Your task to perform on an android device: turn on data saver in the chrome app Image 0: 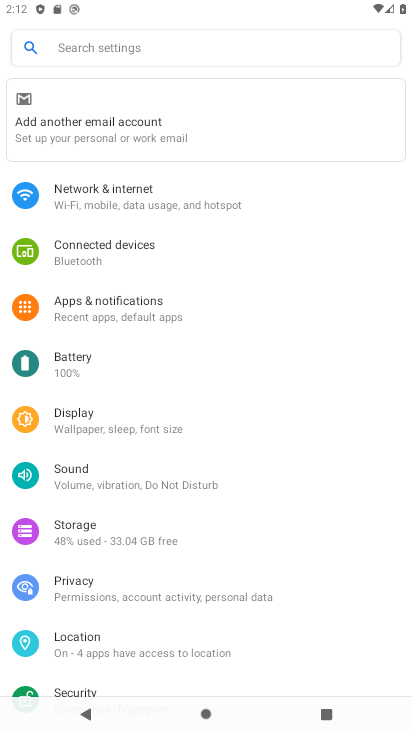
Step 0: drag from (239, 579) to (242, 299)
Your task to perform on an android device: turn on data saver in the chrome app Image 1: 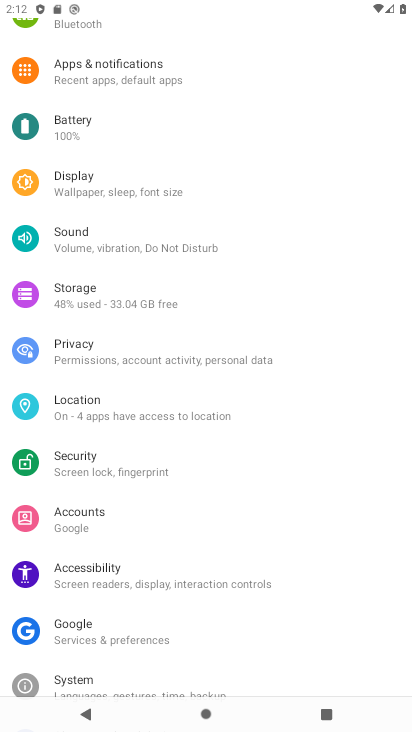
Step 1: drag from (114, 530) to (146, 378)
Your task to perform on an android device: turn on data saver in the chrome app Image 2: 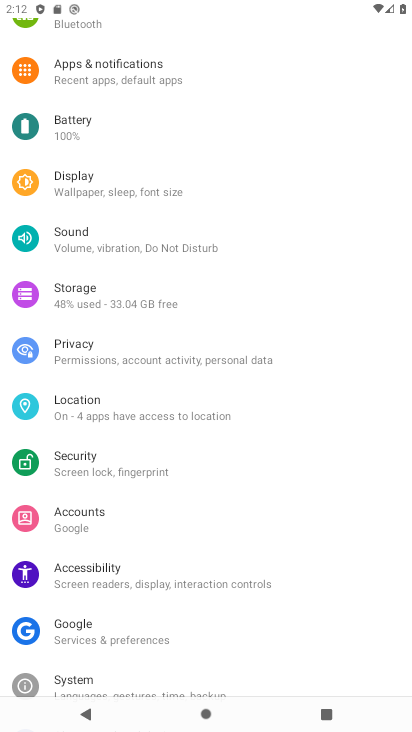
Step 2: drag from (224, 152) to (240, 675)
Your task to perform on an android device: turn on data saver in the chrome app Image 3: 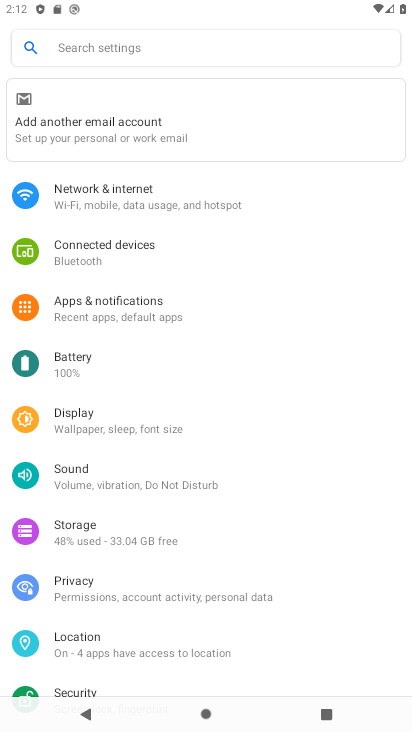
Step 3: drag from (263, 598) to (302, 310)
Your task to perform on an android device: turn on data saver in the chrome app Image 4: 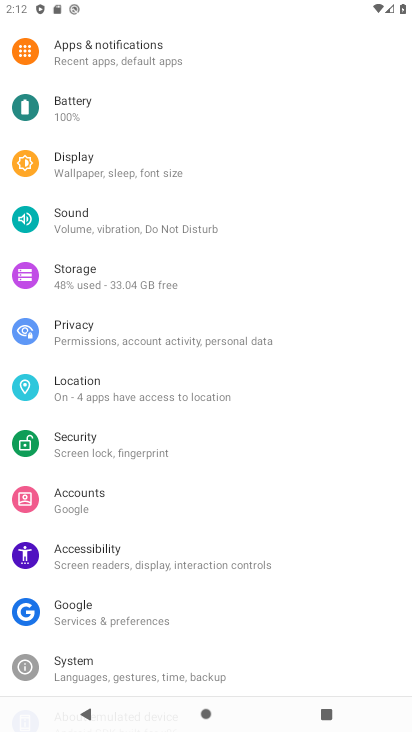
Step 4: press home button
Your task to perform on an android device: turn on data saver in the chrome app Image 5: 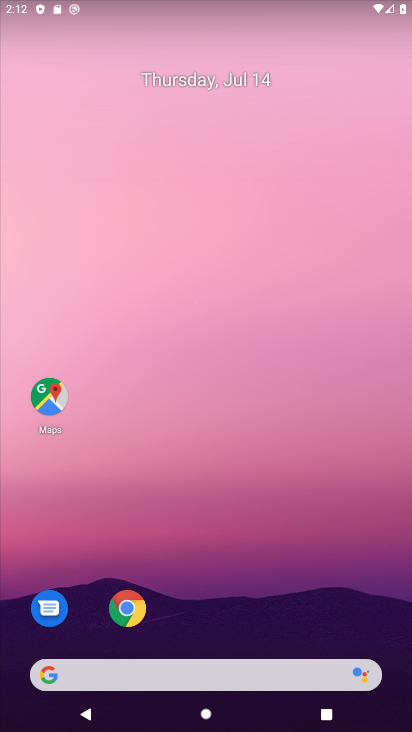
Step 5: drag from (197, 583) to (226, 398)
Your task to perform on an android device: turn on data saver in the chrome app Image 6: 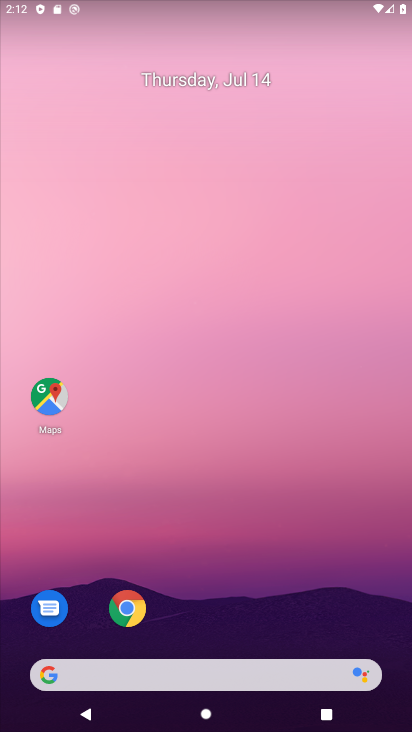
Step 6: drag from (204, 576) to (280, 147)
Your task to perform on an android device: turn on data saver in the chrome app Image 7: 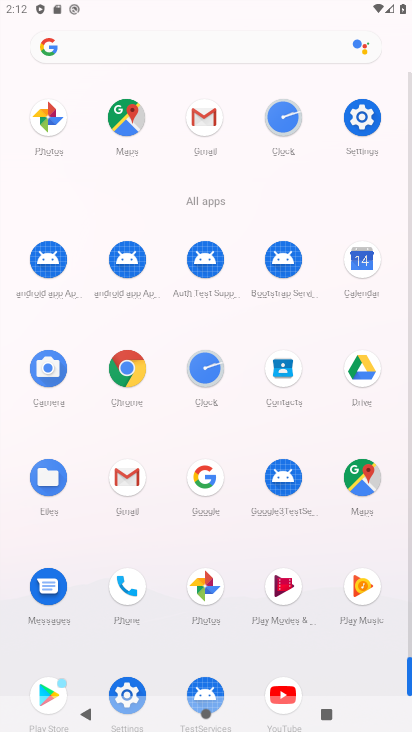
Step 7: click (119, 365)
Your task to perform on an android device: turn on data saver in the chrome app Image 8: 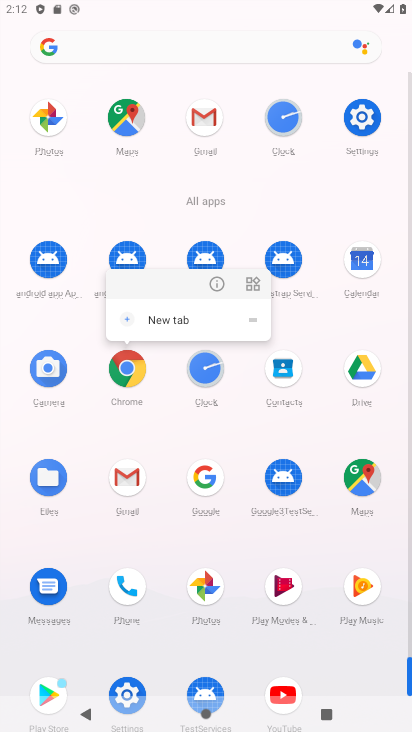
Step 8: click (210, 273)
Your task to perform on an android device: turn on data saver in the chrome app Image 9: 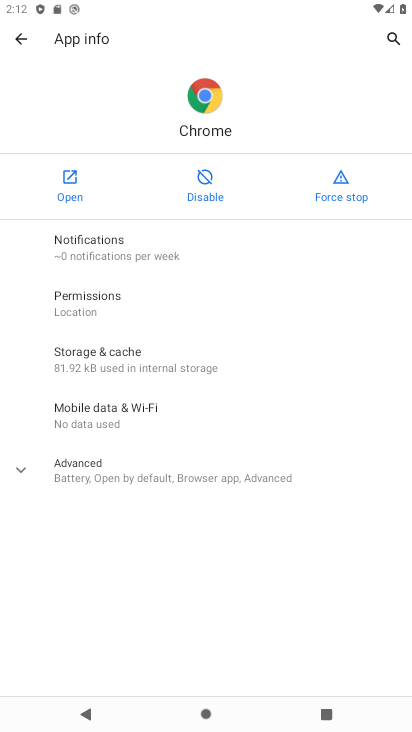
Step 9: click (68, 188)
Your task to perform on an android device: turn on data saver in the chrome app Image 10: 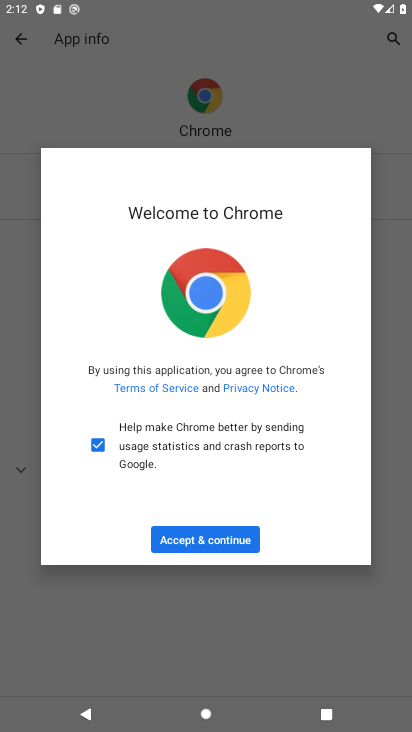
Step 10: click (192, 537)
Your task to perform on an android device: turn on data saver in the chrome app Image 11: 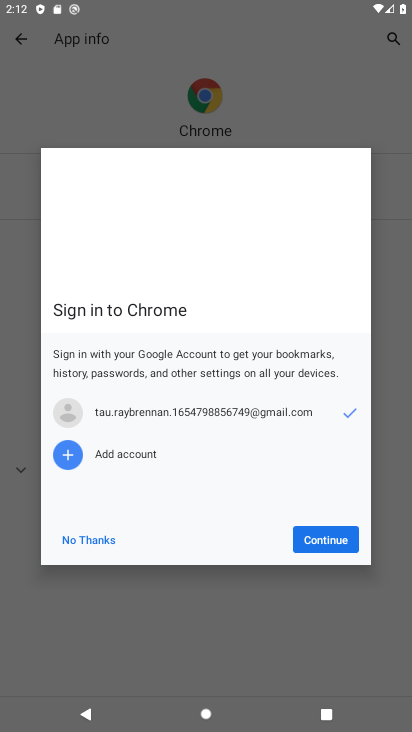
Step 11: click (315, 541)
Your task to perform on an android device: turn on data saver in the chrome app Image 12: 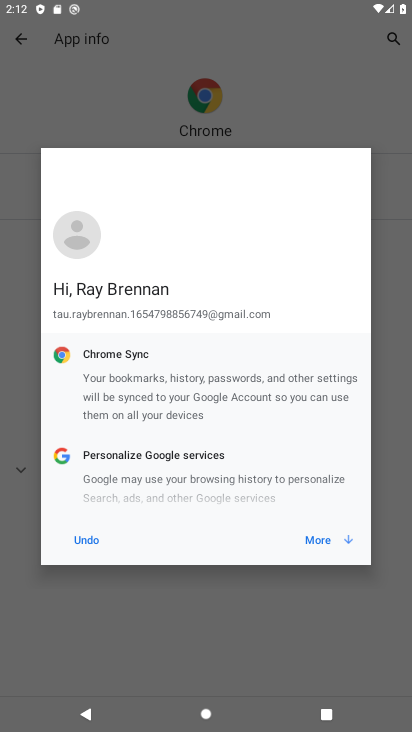
Step 12: click (315, 542)
Your task to perform on an android device: turn on data saver in the chrome app Image 13: 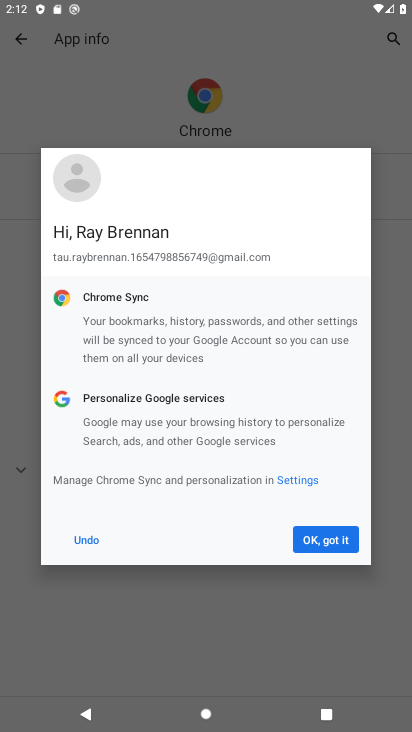
Step 13: click (321, 532)
Your task to perform on an android device: turn on data saver in the chrome app Image 14: 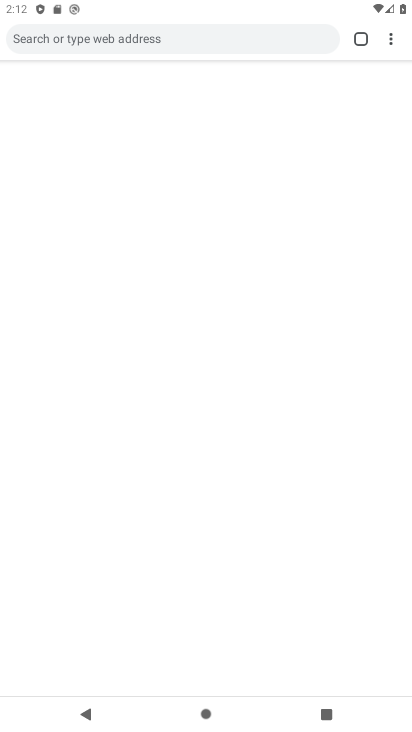
Step 14: drag from (254, 507) to (224, 308)
Your task to perform on an android device: turn on data saver in the chrome app Image 15: 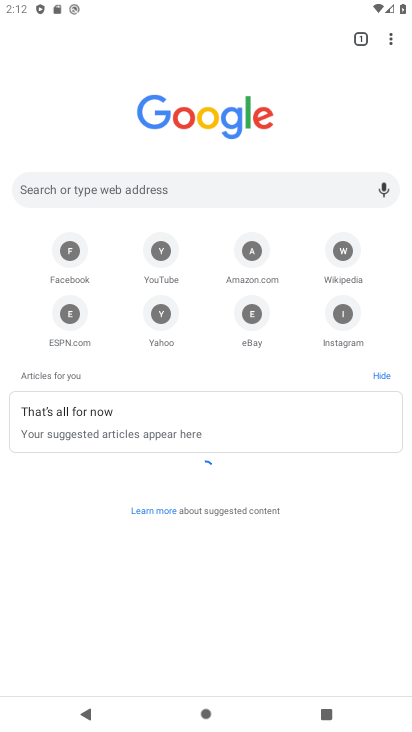
Step 15: drag from (234, 655) to (249, 405)
Your task to perform on an android device: turn on data saver in the chrome app Image 16: 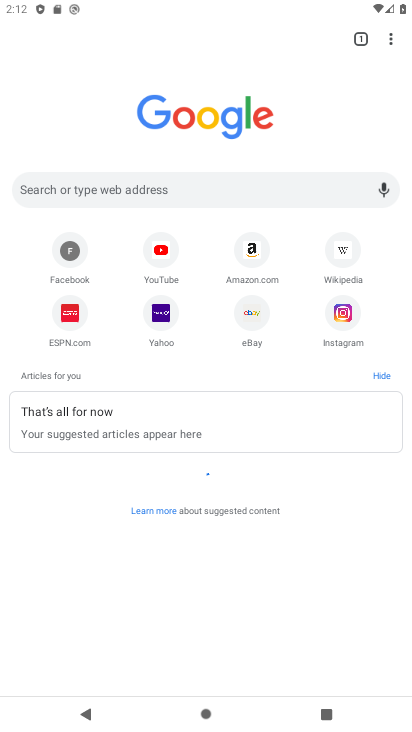
Step 16: drag from (250, 569) to (259, 242)
Your task to perform on an android device: turn on data saver in the chrome app Image 17: 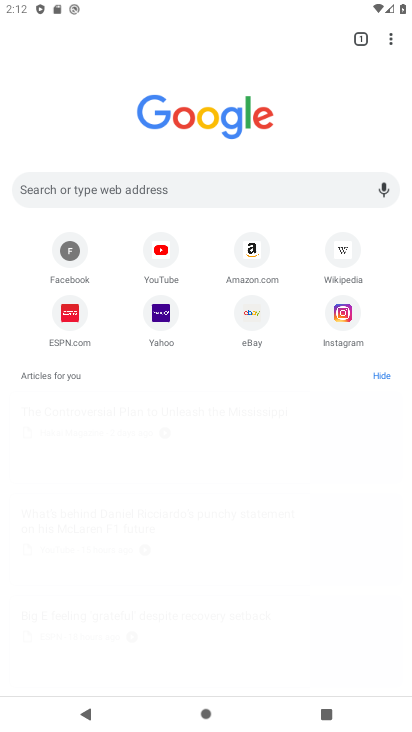
Step 17: drag from (228, 518) to (231, 146)
Your task to perform on an android device: turn on data saver in the chrome app Image 18: 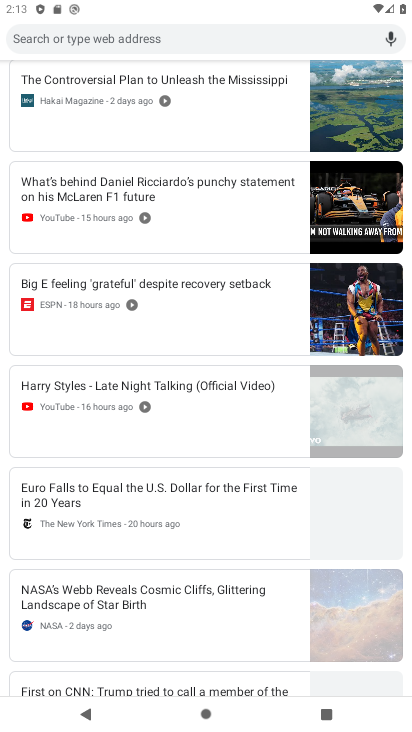
Step 18: drag from (292, 327) to (366, 604)
Your task to perform on an android device: turn on data saver in the chrome app Image 19: 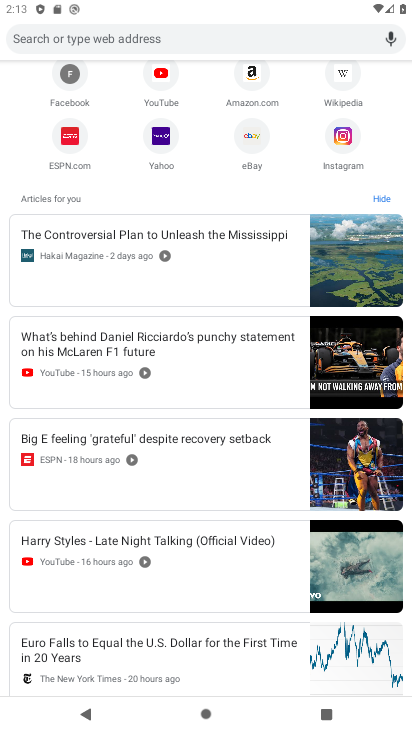
Step 19: drag from (252, 106) to (362, 698)
Your task to perform on an android device: turn on data saver in the chrome app Image 20: 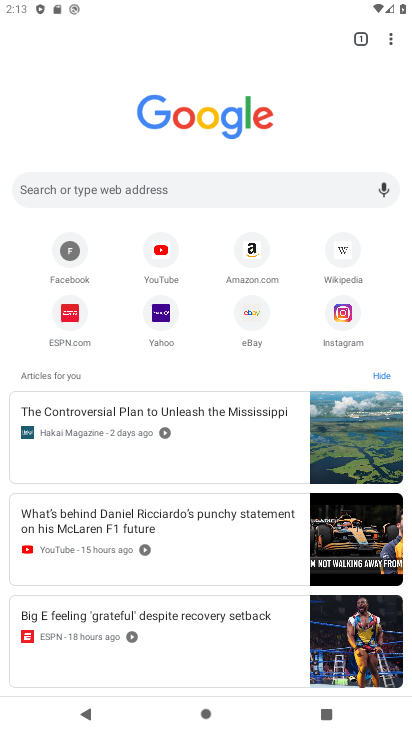
Step 20: drag from (373, 69) to (374, 518)
Your task to perform on an android device: turn on data saver in the chrome app Image 21: 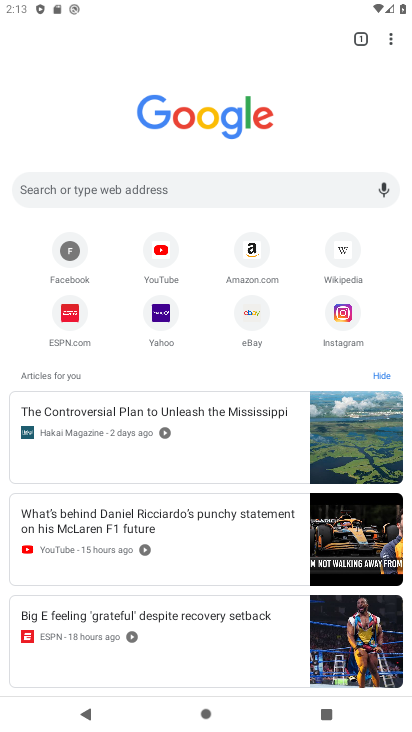
Step 21: click (391, 44)
Your task to perform on an android device: turn on data saver in the chrome app Image 22: 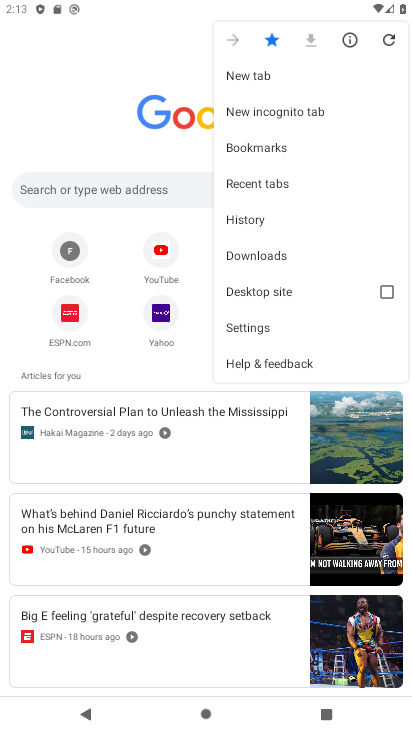
Step 22: click (275, 324)
Your task to perform on an android device: turn on data saver in the chrome app Image 23: 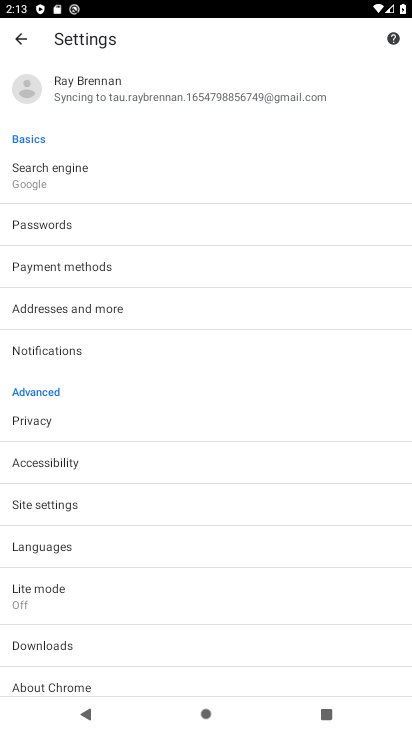
Step 23: drag from (150, 475) to (157, 268)
Your task to perform on an android device: turn on data saver in the chrome app Image 24: 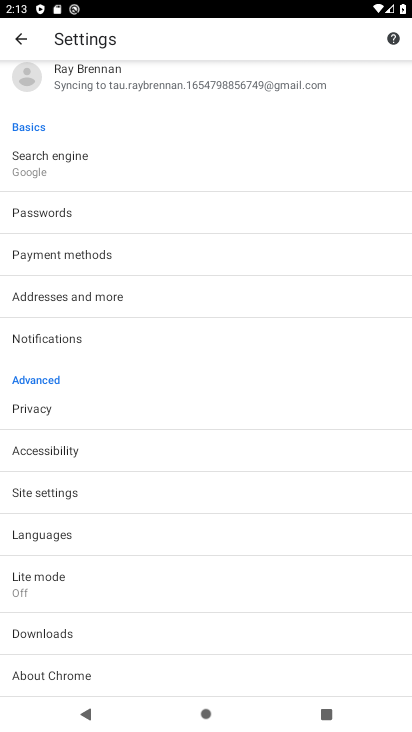
Step 24: click (84, 485)
Your task to perform on an android device: turn on data saver in the chrome app Image 25: 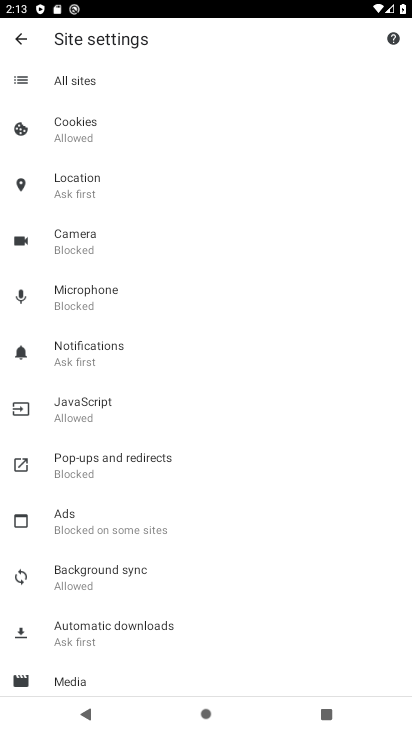
Step 25: drag from (183, 403) to (184, 355)
Your task to perform on an android device: turn on data saver in the chrome app Image 26: 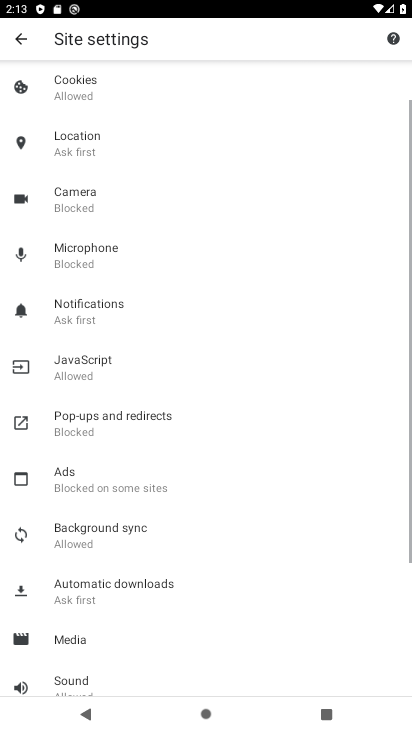
Step 26: drag from (210, 519) to (229, 240)
Your task to perform on an android device: turn on data saver in the chrome app Image 27: 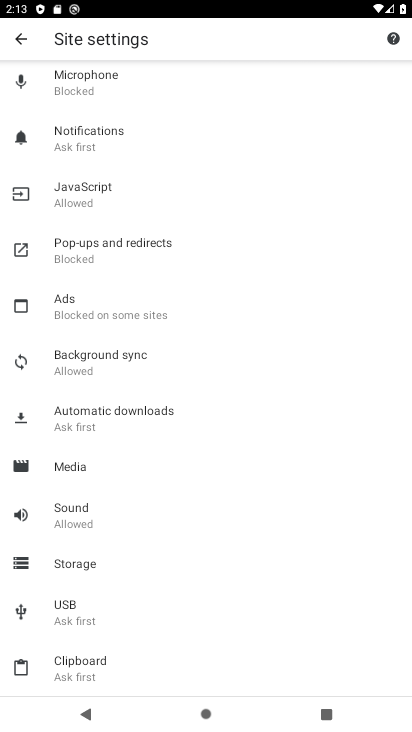
Step 27: drag from (197, 593) to (249, 243)
Your task to perform on an android device: turn on data saver in the chrome app Image 28: 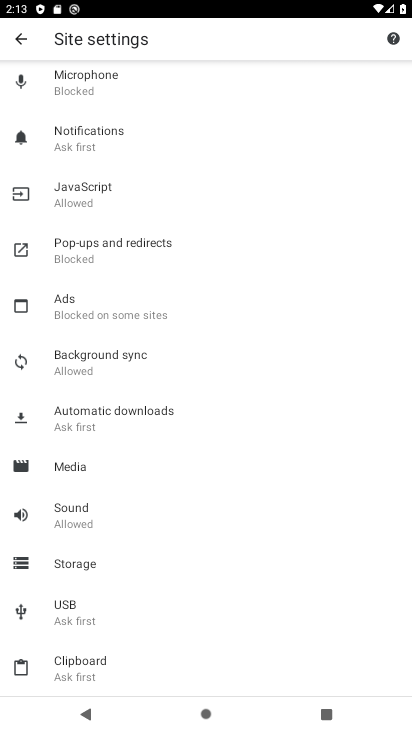
Step 28: drag from (230, 608) to (231, 287)
Your task to perform on an android device: turn on data saver in the chrome app Image 29: 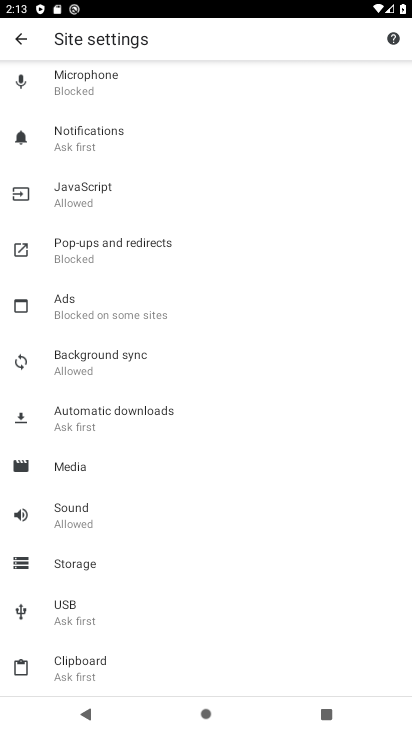
Step 29: drag from (235, 155) to (341, 608)
Your task to perform on an android device: turn on data saver in the chrome app Image 30: 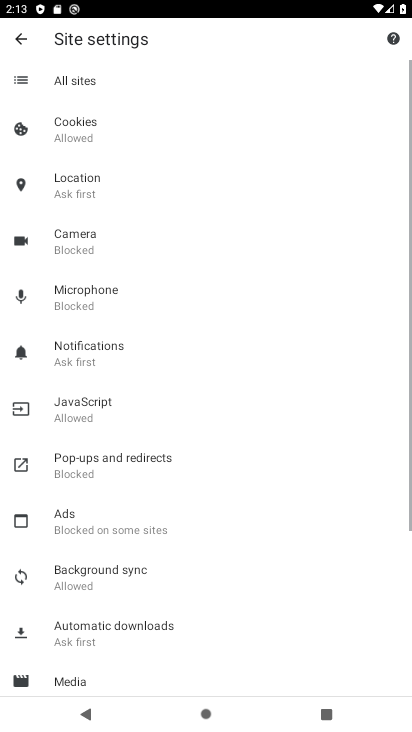
Step 30: drag from (203, 173) to (294, 468)
Your task to perform on an android device: turn on data saver in the chrome app Image 31: 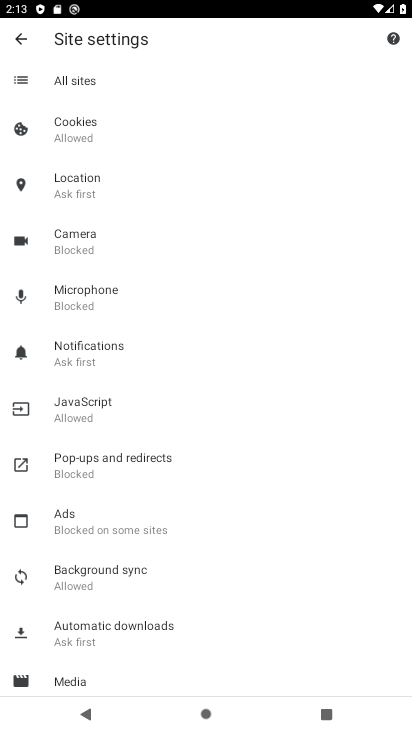
Step 31: drag from (201, 625) to (230, 353)
Your task to perform on an android device: turn on data saver in the chrome app Image 32: 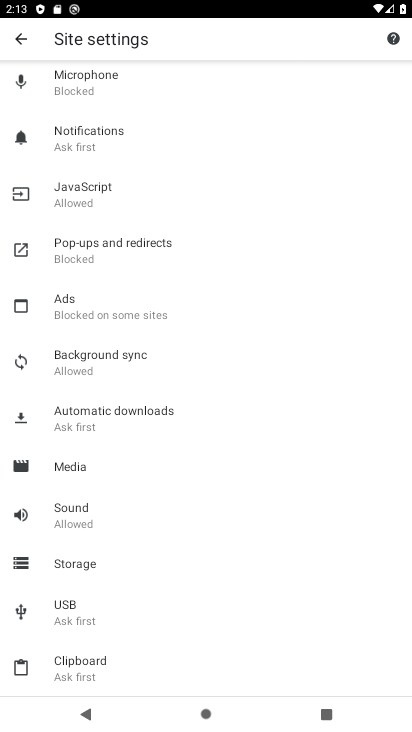
Step 32: drag from (214, 151) to (258, 708)
Your task to perform on an android device: turn on data saver in the chrome app Image 33: 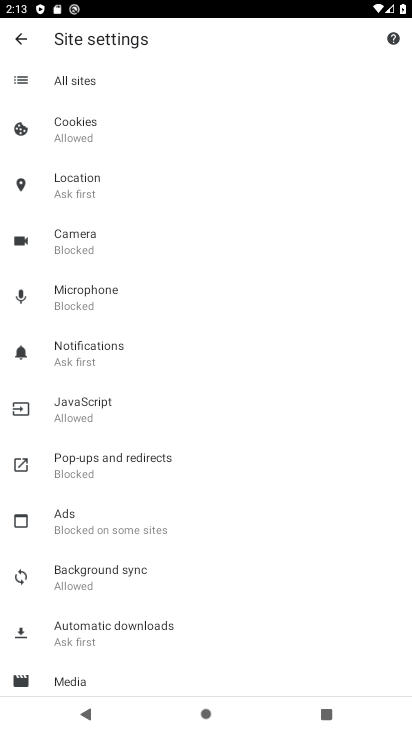
Step 33: click (23, 47)
Your task to perform on an android device: turn on data saver in the chrome app Image 34: 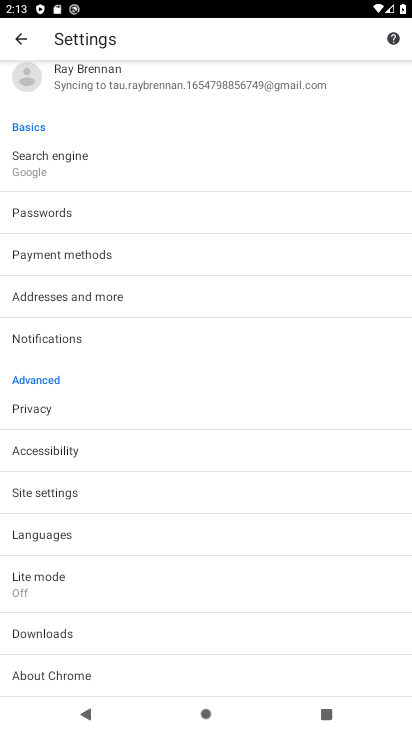
Step 34: drag from (96, 649) to (125, 314)
Your task to perform on an android device: turn on data saver in the chrome app Image 35: 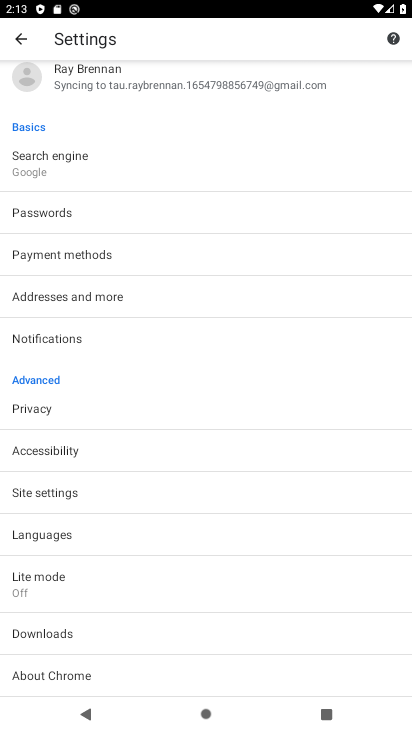
Step 35: click (161, 588)
Your task to perform on an android device: turn on data saver in the chrome app Image 36: 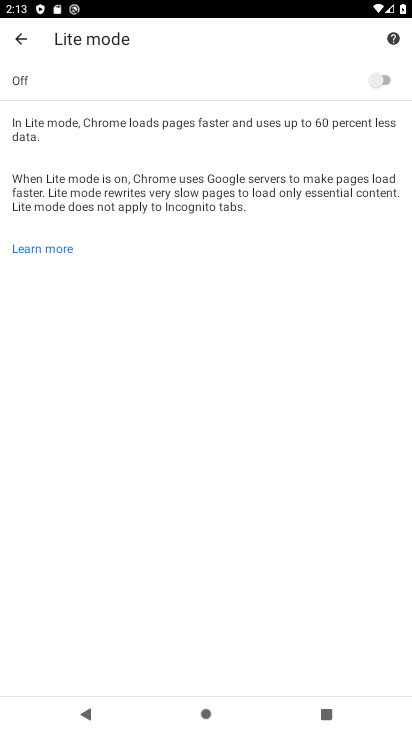
Step 36: click (381, 83)
Your task to perform on an android device: turn on data saver in the chrome app Image 37: 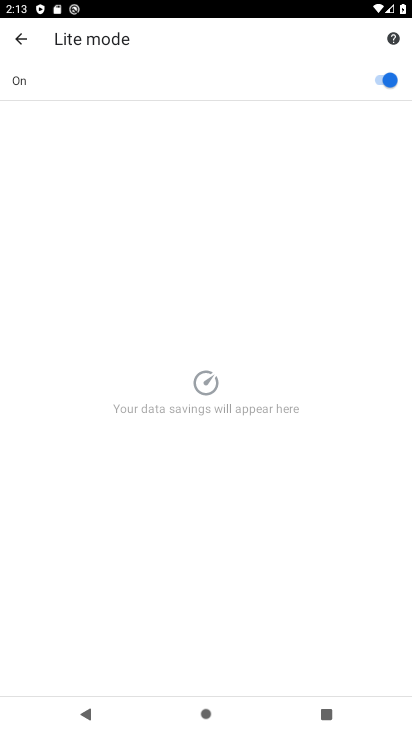
Step 37: task complete